Your task to perform on an android device: Open Reddit.com Image 0: 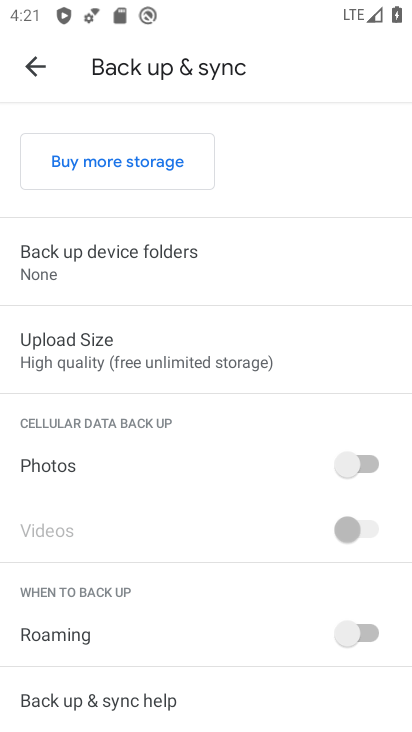
Step 0: press home button
Your task to perform on an android device: Open Reddit.com Image 1: 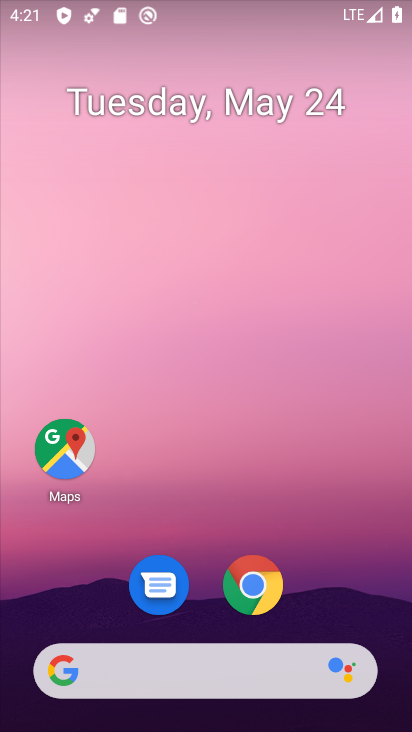
Step 1: click (262, 665)
Your task to perform on an android device: Open Reddit.com Image 2: 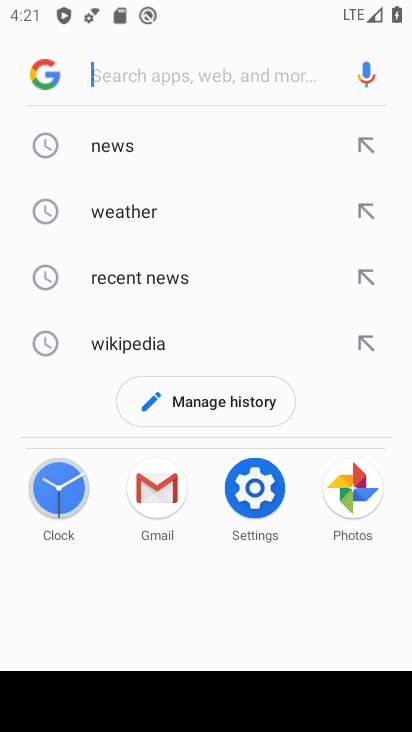
Step 2: type "reddit.com"
Your task to perform on an android device: Open Reddit.com Image 3: 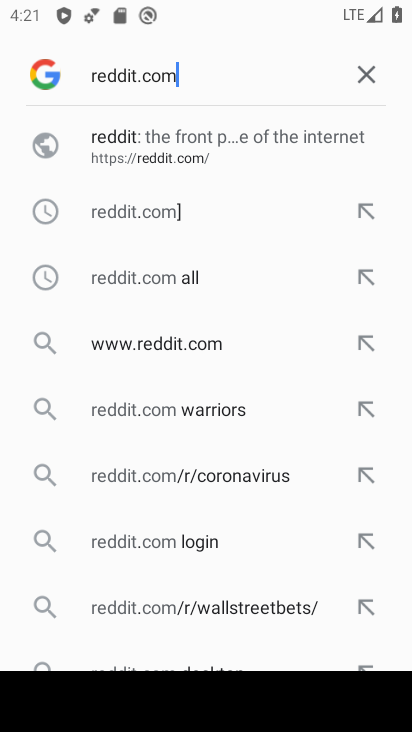
Step 3: click (125, 136)
Your task to perform on an android device: Open Reddit.com Image 4: 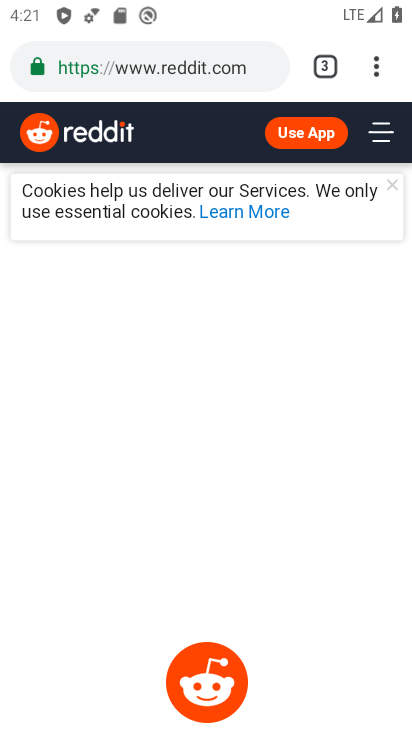
Step 4: task complete